Your task to perform on an android device: Open Youtube and go to "Your channel" Image 0: 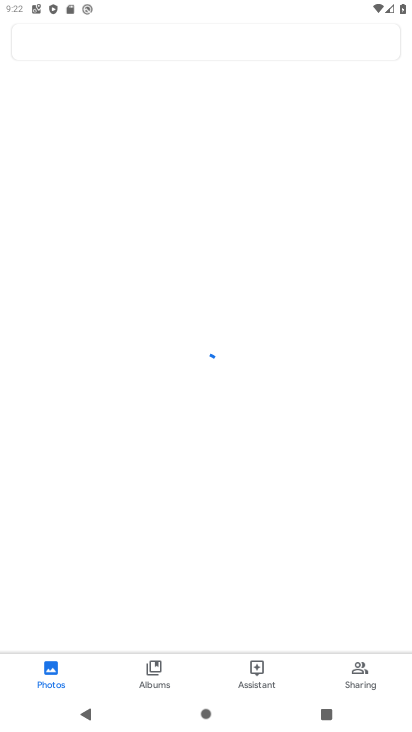
Step 0: press home button
Your task to perform on an android device: Open Youtube and go to "Your channel" Image 1: 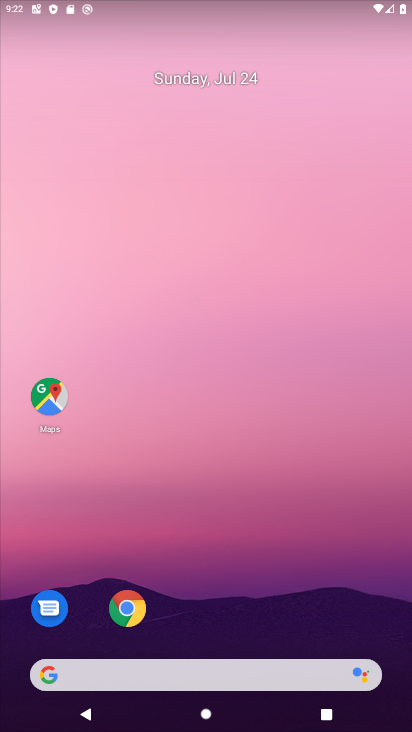
Step 1: drag from (239, 612) to (233, 162)
Your task to perform on an android device: Open Youtube and go to "Your channel" Image 2: 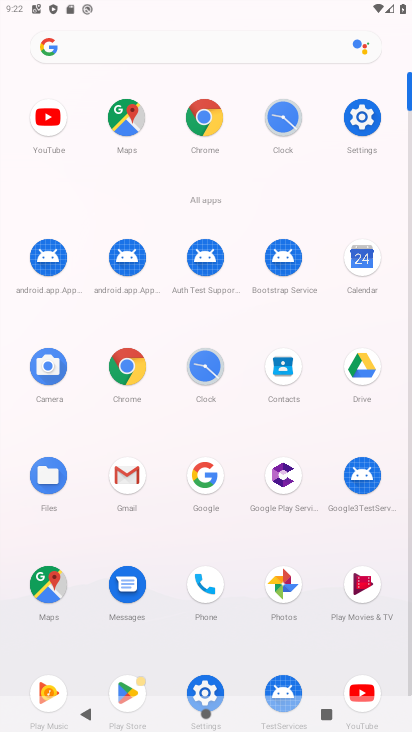
Step 2: click (359, 682)
Your task to perform on an android device: Open Youtube and go to "Your channel" Image 3: 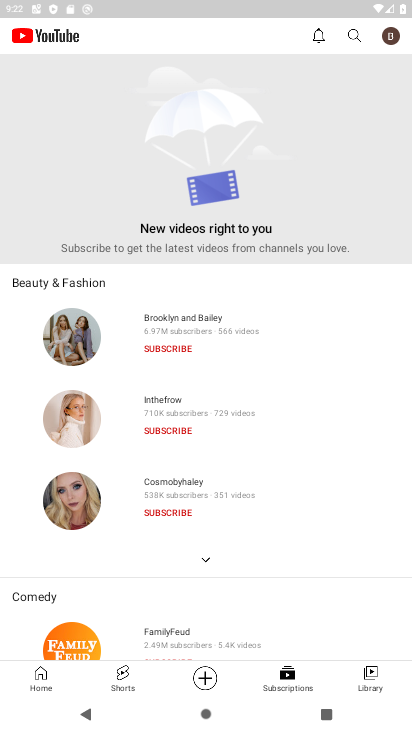
Step 3: click (385, 36)
Your task to perform on an android device: Open Youtube and go to "Your channel" Image 4: 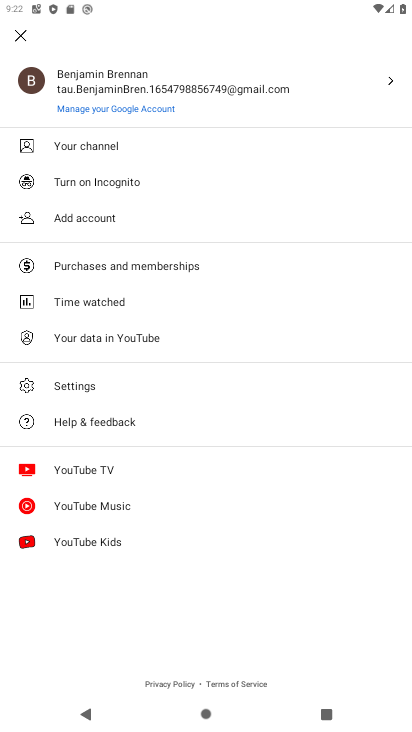
Step 4: click (64, 146)
Your task to perform on an android device: Open Youtube and go to "Your channel" Image 5: 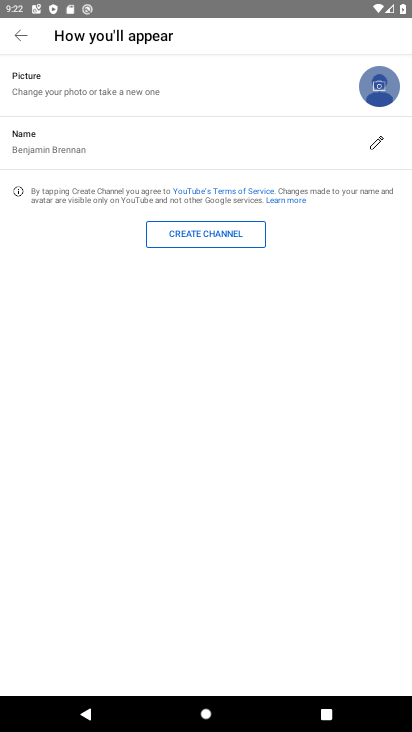
Step 5: task complete